Your task to perform on an android device: Go to ESPN.com Image 0: 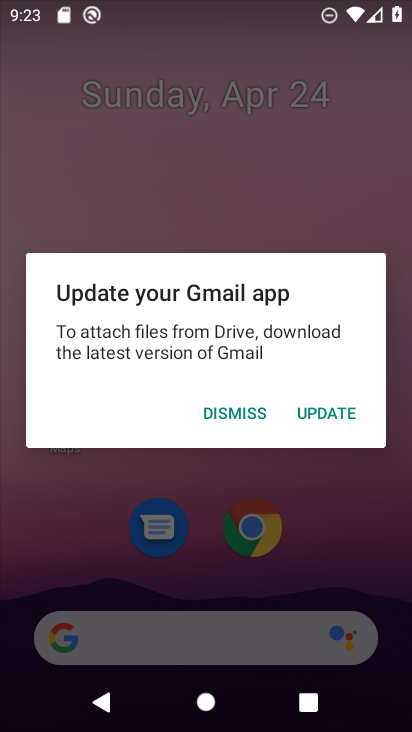
Step 0: press home button
Your task to perform on an android device: Go to ESPN.com Image 1: 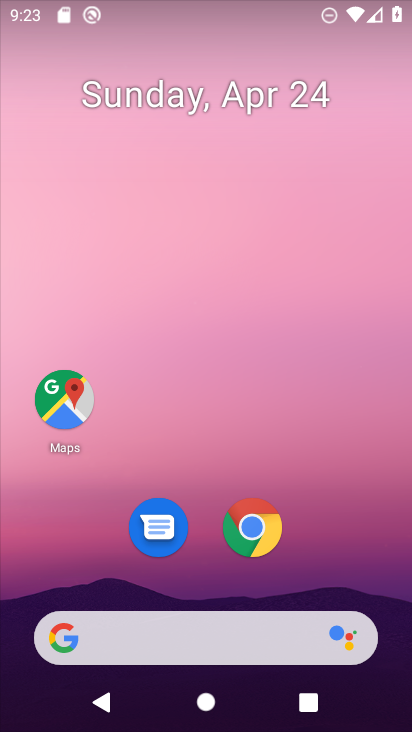
Step 1: drag from (385, 578) to (294, 60)
Your task to perform on an android device: Go to ESPN.com Image 2: 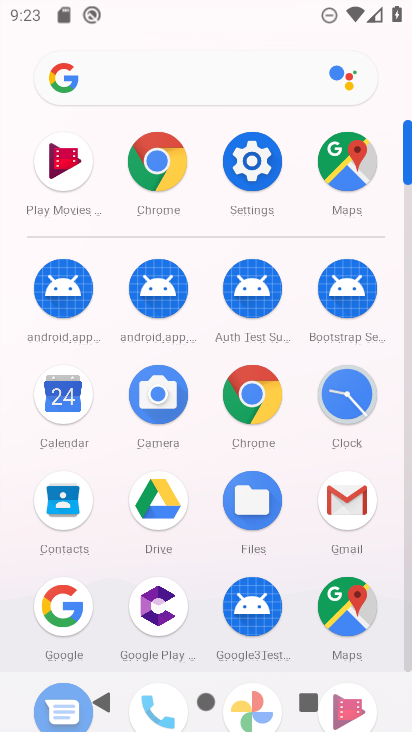
Step 2: click (156, 185)
Your task to perform on an android device: Go to ESPN.com Image 3: 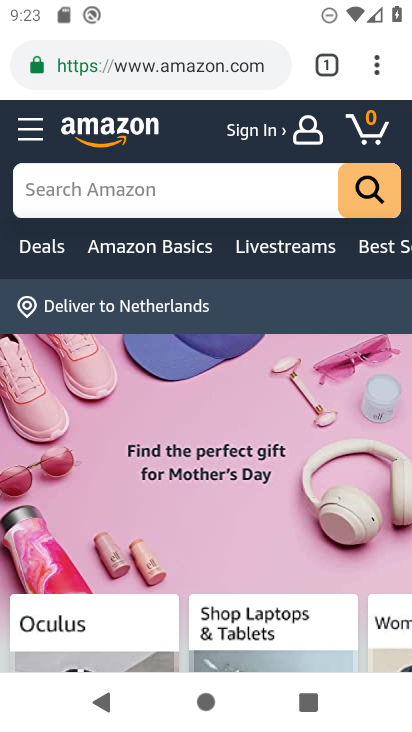
Step 3: press back button
Your task to perform on an android device: Go to ESPN.com Image 4: 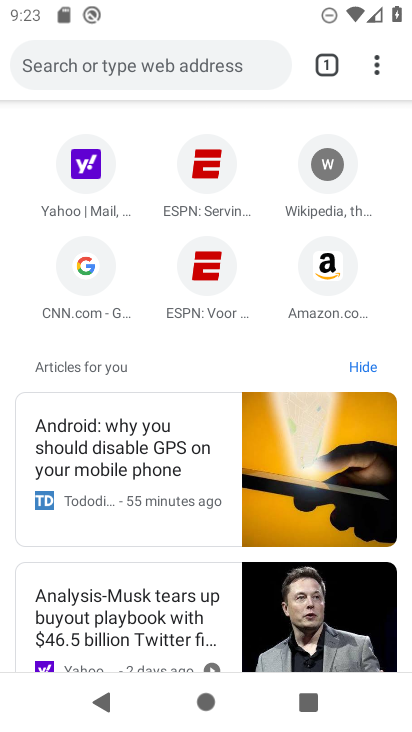
Step 4: click (215, 163)
Your task to perform on an android device: Go to ESPN.com Image 5: 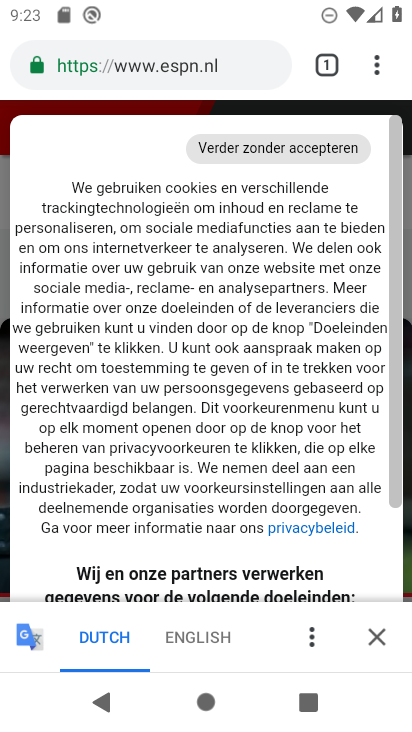
Step 5: task complete